Your task to perform on an android device: Open calendar and show me the third week of next month Image 0: 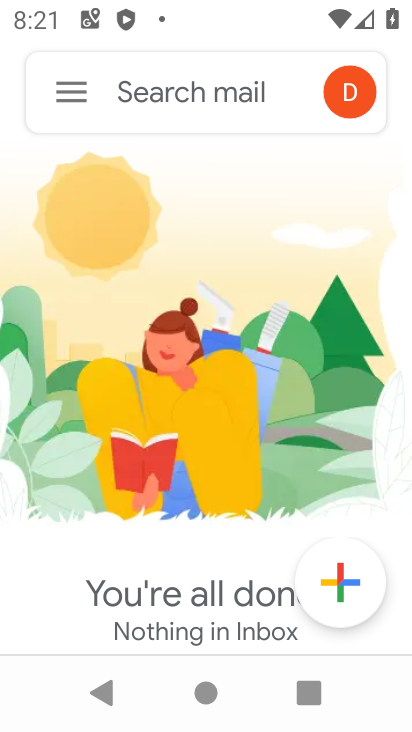
Step 0: press home button
Your task to perform on an android device: Open calendar and show me the third week of next month Image 1: 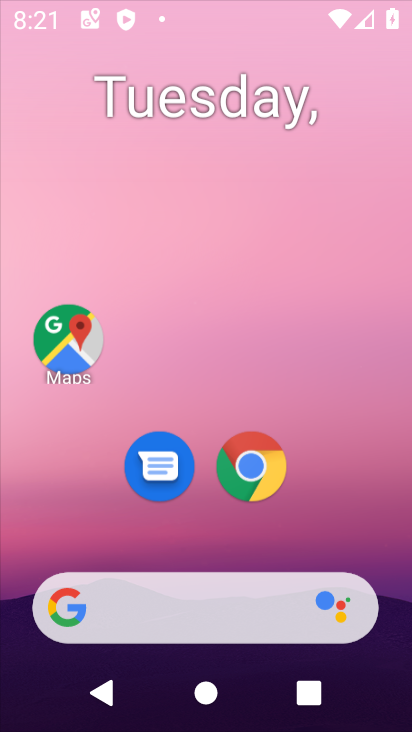
Step 1: press home button
Your task to perform on an android device: Open calendar and show me the third week of next month Image 2: 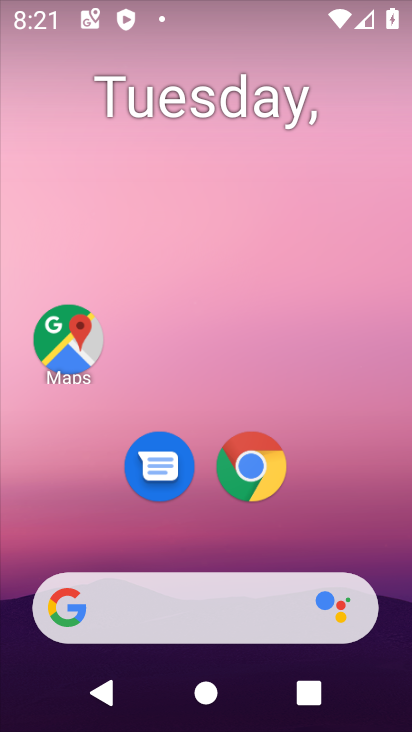
Step 2: drag from (369, 492) to (371, 149)
Your task to perform on an android device: Open calendar and show me the third week of next month Image 3: 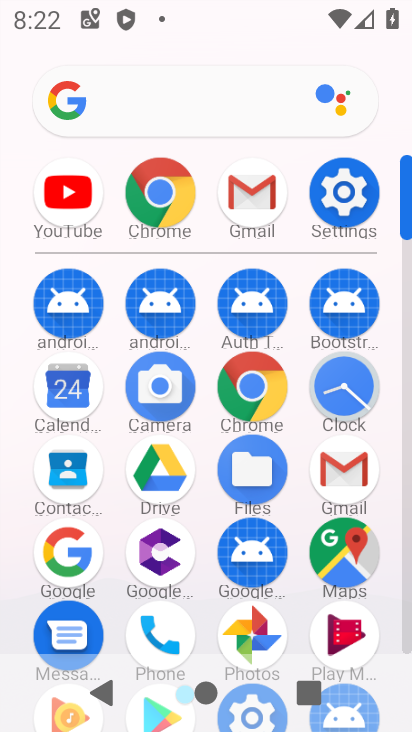
Step 3: click (58, 412)
Your task to perform on an android device: Open calendar and show me the third week of next month Image 4: 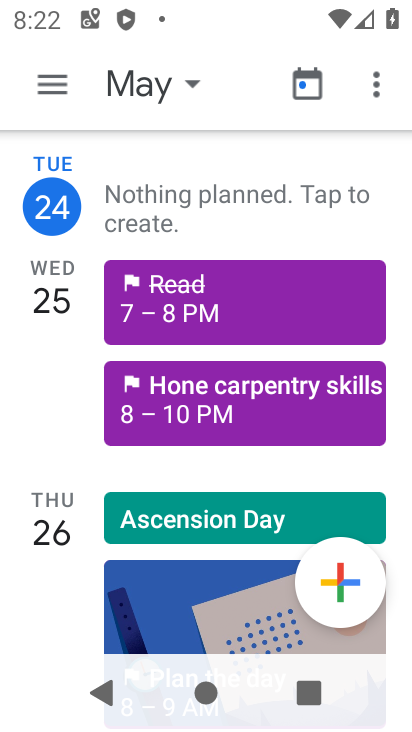
Step 4: task complete